Your task to perform on an android device: toggle wifi Image 0: 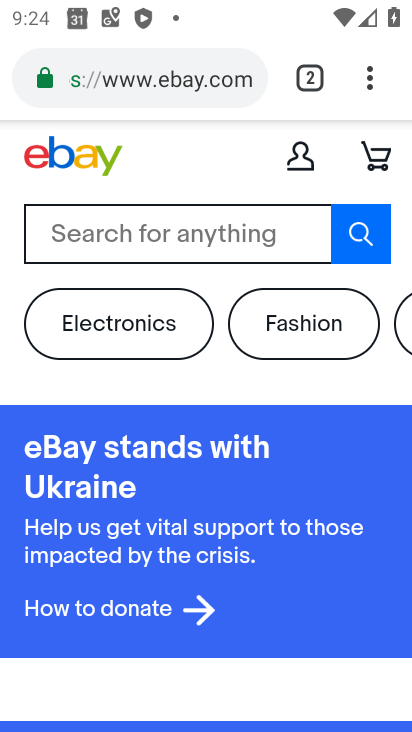
Step 0: press back button
Your task to perform on an android device: toggle wifi Image 1: 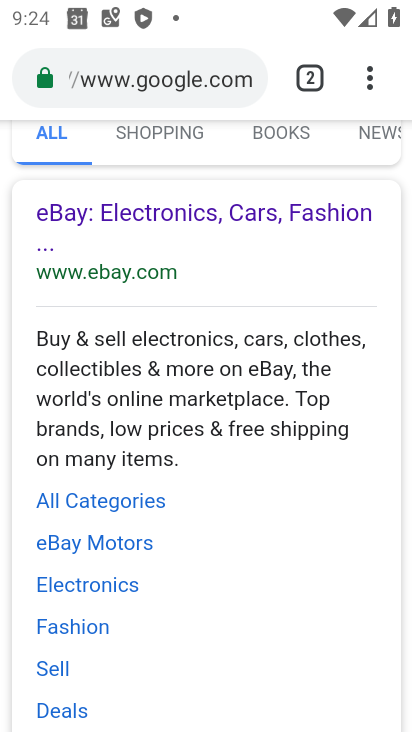
Step 1: press back button
Your task to perform on an android device: toggle wifi Image 2: 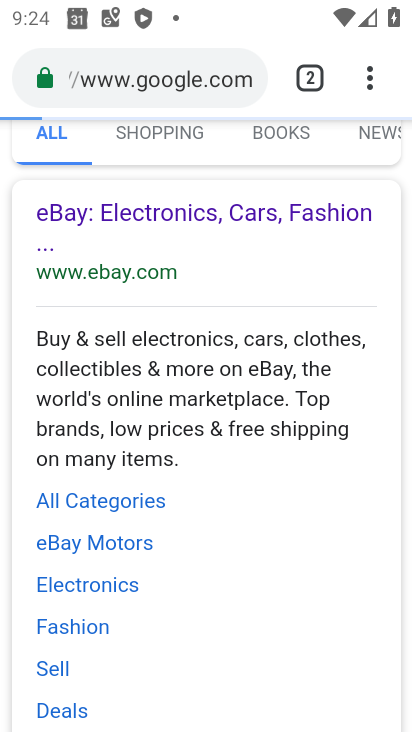
Step 2: press home button
Your task to perform on an android device: toggle wifi Image 3: 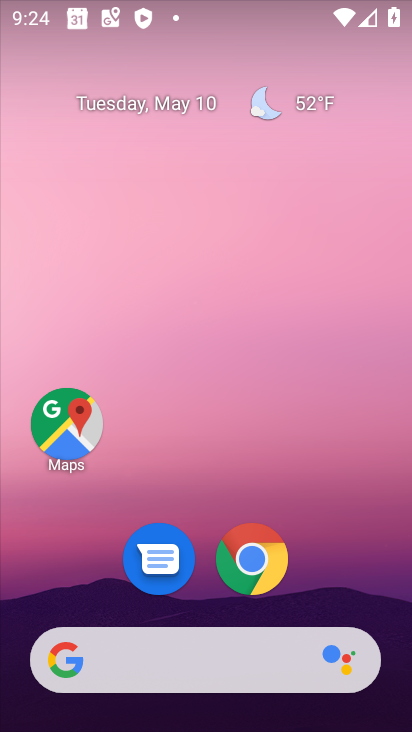
Step 3: drag from (347, 568) to (207, 0)
Your task to perform on an android device: toggle wifi Image 4: 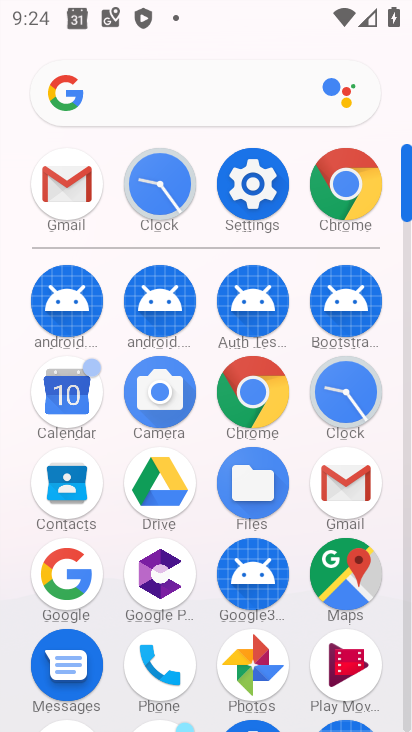
Step 4: click (254, 182)
Your task to perform on an android device: toggle wifi Image 5: 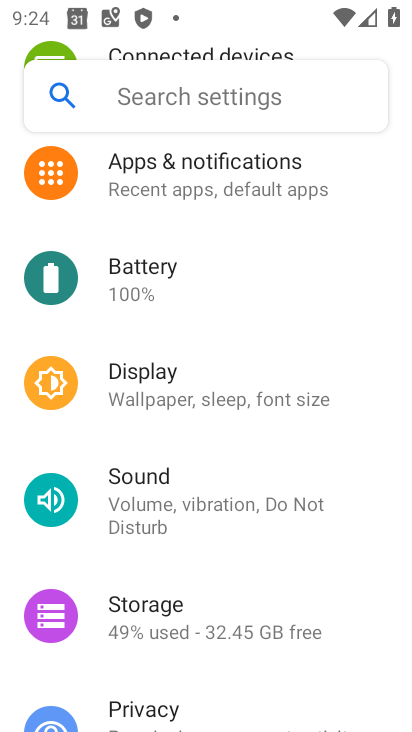
Step 5: drag from (297, 238) to (254, 608)
Your task to perform on an android device: toggle wifi Image 6: 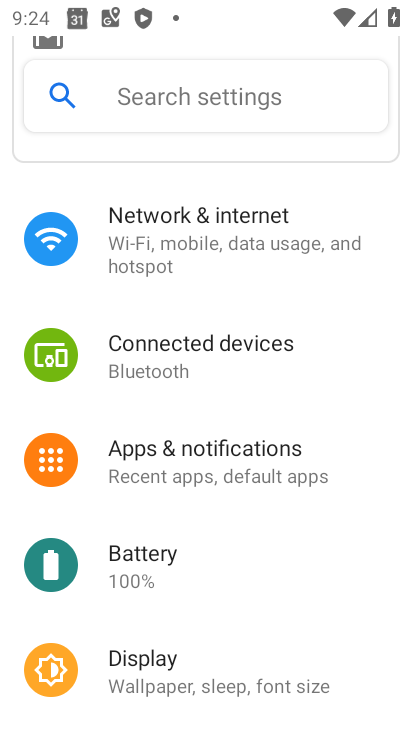
Step 6: click (221, 254)
Your task to perform on an android device: toggle wifi Image 7: 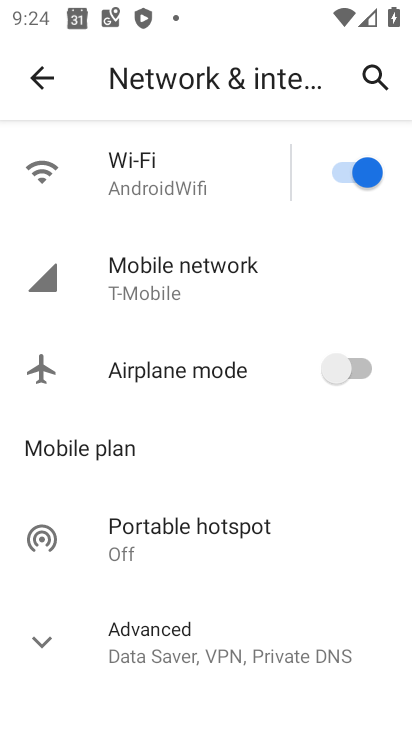
Step 7: click (183, 177)
Your task to perform on an android device: toggle wifi Image 8: 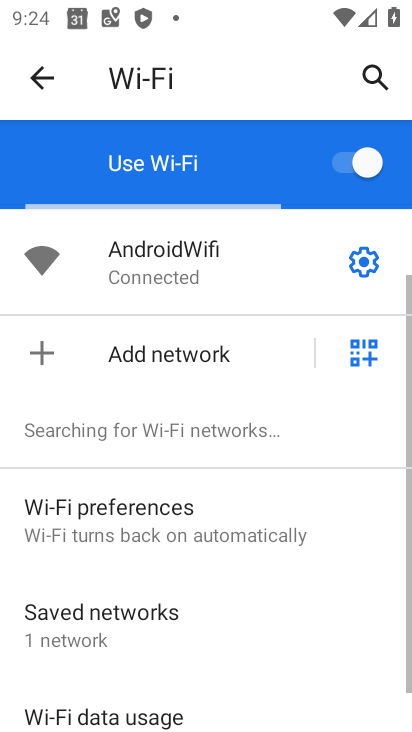
Step 8: click (33, 71)
Your task to perform on an android device: toggle wifi Image 9: 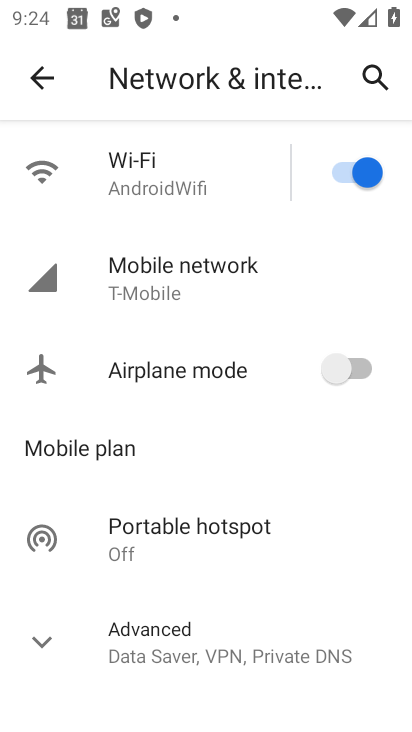
Step 9: click (343, 180)
Your task to perform on an android device: toggle wifi Image 10: 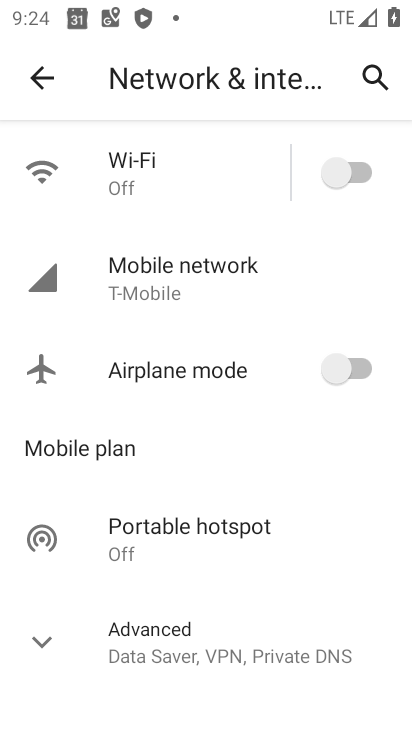
Step 10: task complete